Your task to perform on an android device: Open Google Maps and go to "Timeline" Image 0: 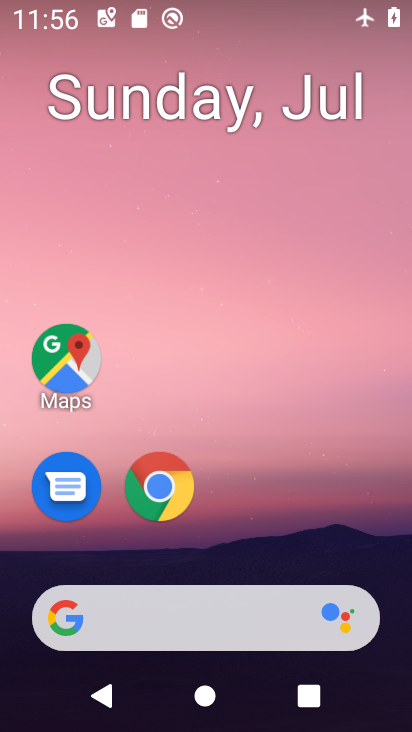
Step 0: press home button
Your task to perform on an android device: Open Google Maps and go to "Timeline" Image 1: 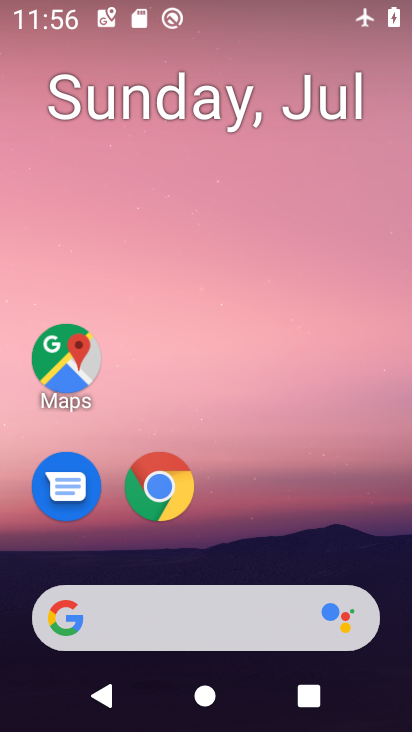
Step 1: drag from (374, 429) to (390, 81)
Your task to perform on an android device: Open Google Maps and go to "Timeline" Image 2: 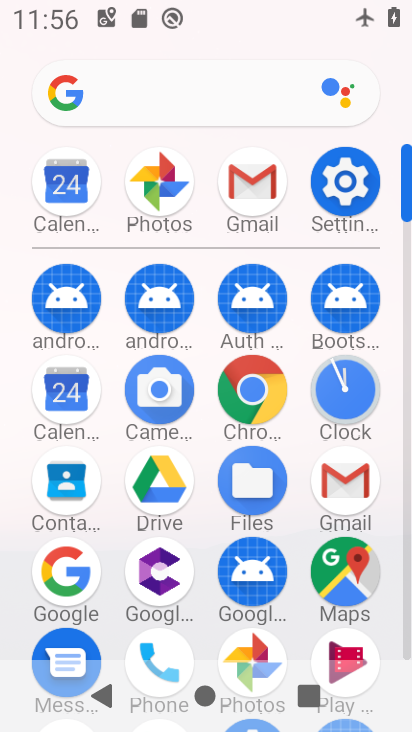
Step 2: click (354, 568)
Your task to perform on an android device: Open Google Maps and go to "Timeline" Image 3: 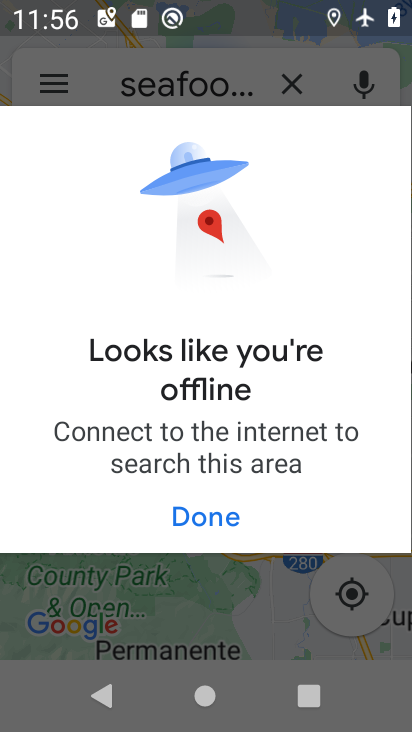
Step 3: press back button
Your task to perform on an android device: Open Google Maps and go to "Timeline" Image 4: 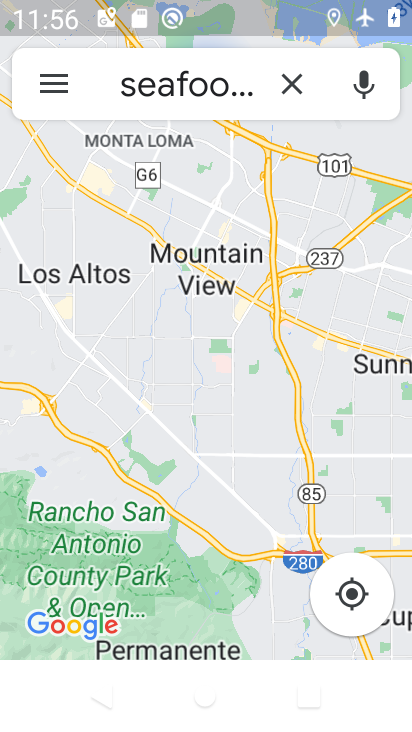
Step 4: click (60, 92)
Your task to perform on an android device: Open Google Maps and go to "Timeline" Image 5: 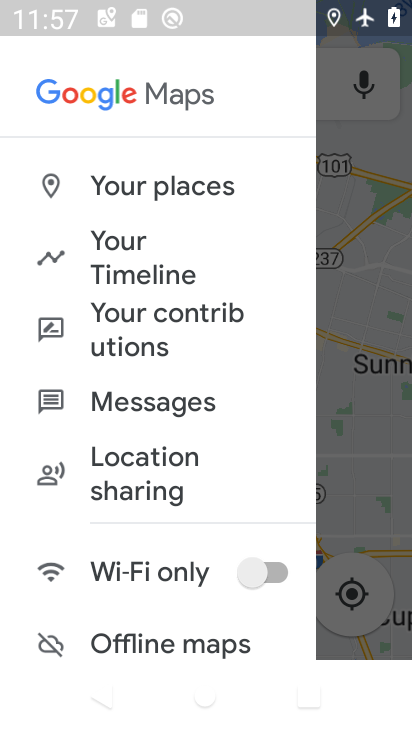
Step 5: click (126, 257)
Your task to perform on an android device: Open Google Maps and go to "Timeline" Image 6: 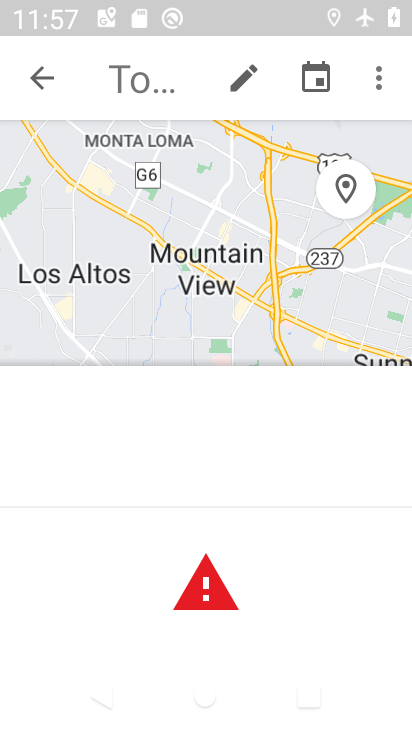
Step 6: task complete